Your task to perform on an android device: check storage Image 0: 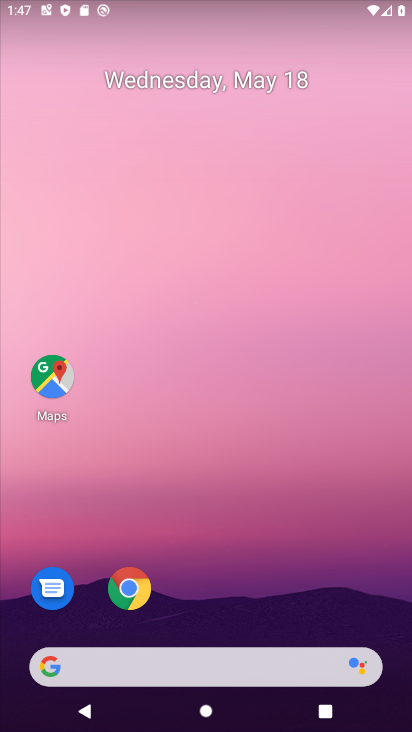
Step 0: drag from (379, 608) to (352, 219)
Your task to perform on an android device: check storage Image 1: 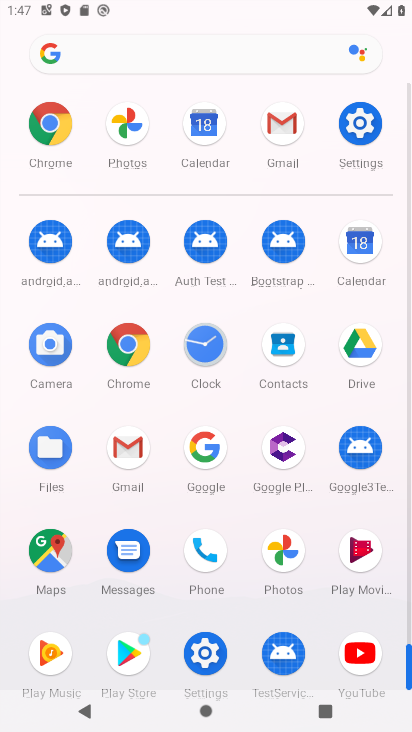
Step 1: click (360, 139)
Your task to perform on an android device: check storage Image 2: 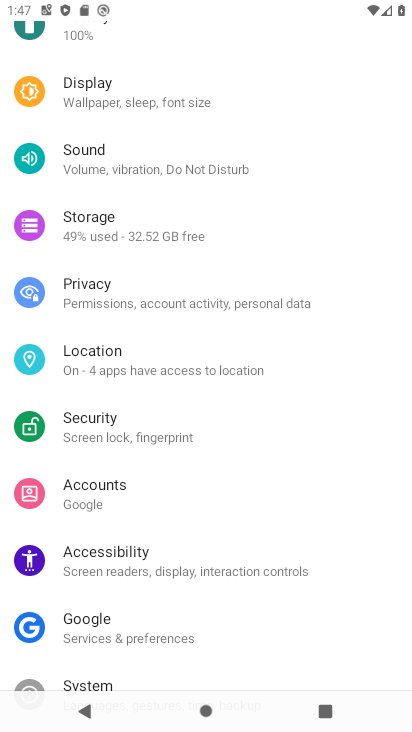
Step 2: drag from (352, 602) to (364, 456)
Your task to perform on an android device: check storage Image 3: 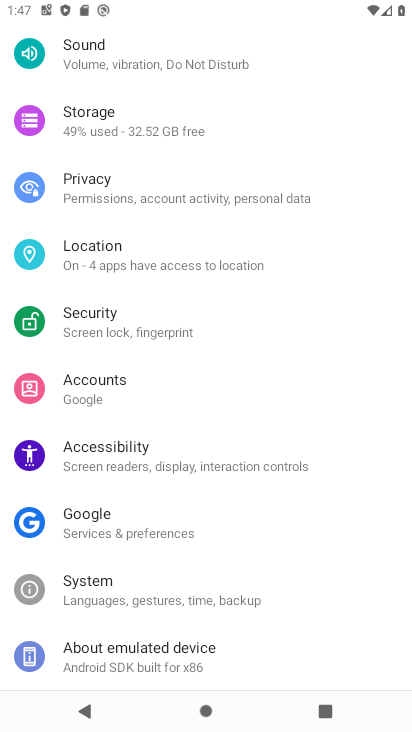
Step 3: drag from (337, 598) to (333, 429)
Your task to perform on an android device: check storage Image 4: 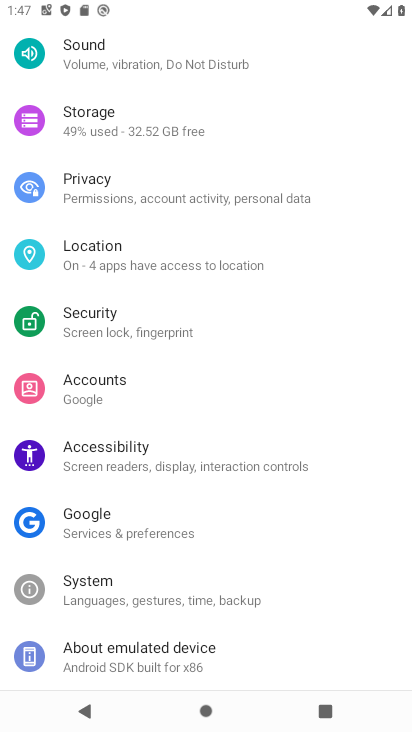
Step 4: drag from (336, 357) to (331, 478)
Your task to perform on an android device: check storage Image 5: 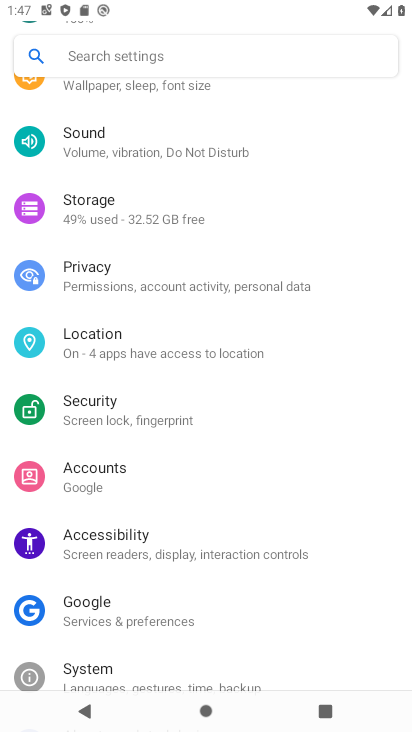
Step 5: drag from (334, 327) to (334, 454)
Your task to perform on an android device: check storage Image 6: 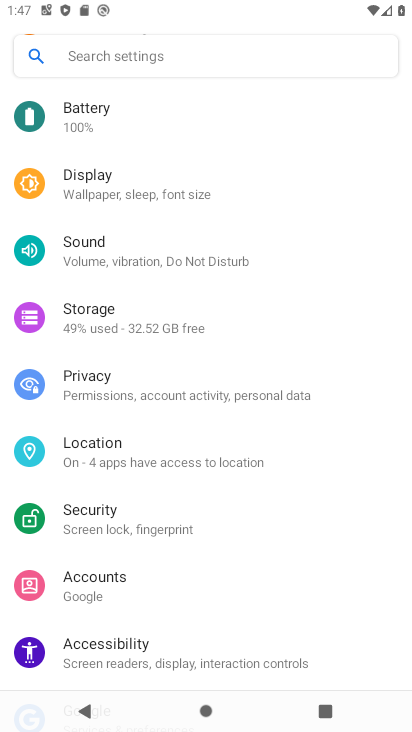
Step 6: drag from (362, 271) to (348, 496)
Your task to perform on an android device: check storage Image 7: 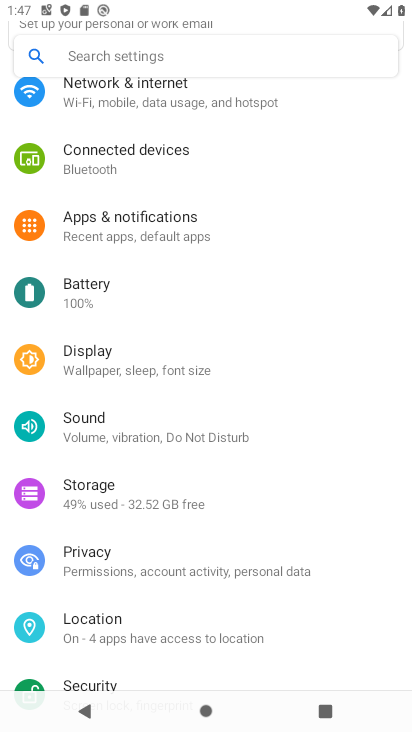
Step 7: drag from (339, 267) to (320, 496)
Your task to perform on an android device: check storage Image 8: 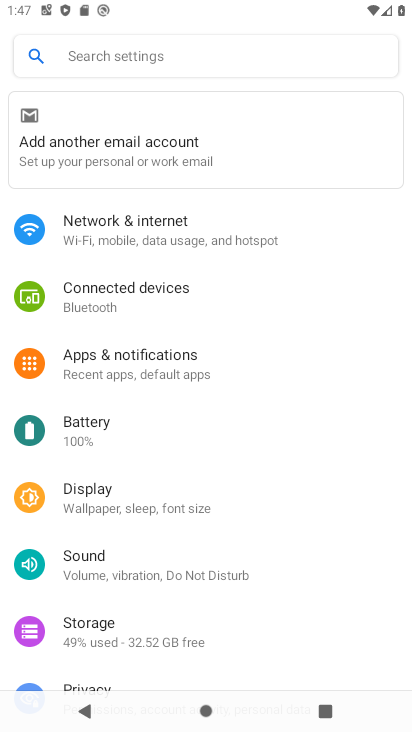
Step 8: drag from (313, 335) to (300, 496)
Your task to perform on an android device: check storage Image 9: 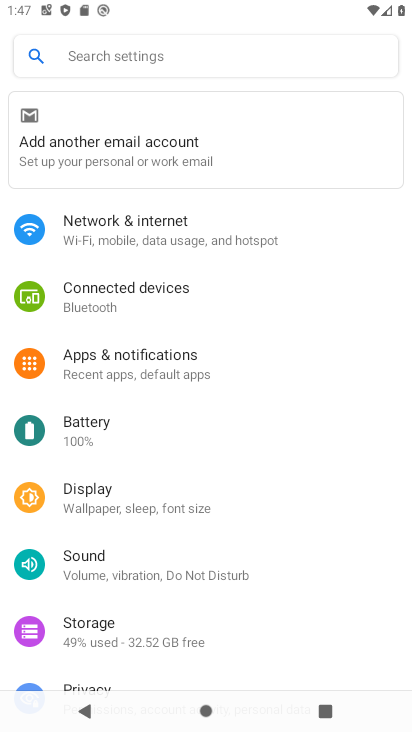
Step 9: drag from (310, 589) to (324, 378)
Your task to perform on an android device: check storage Image 10: 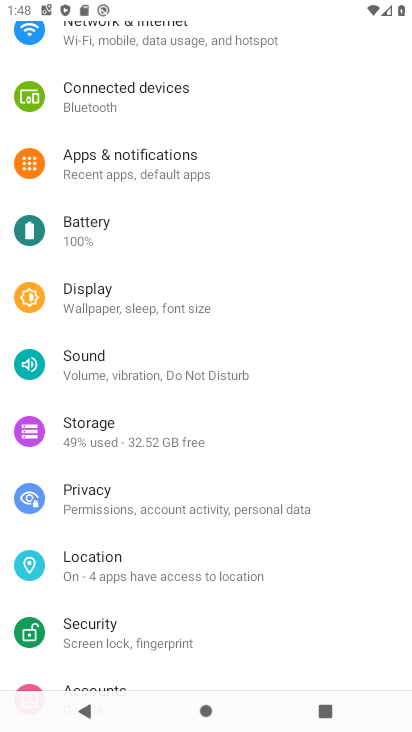
Step 10: drag from (336, 594) to (349, 431)
Your task to perform on an android device: check storage Image 11: 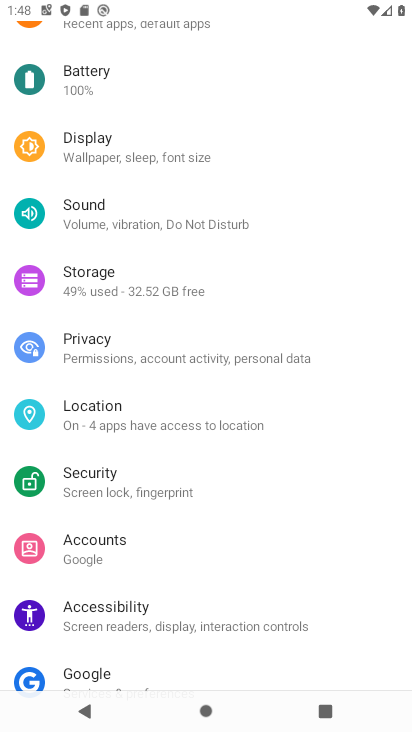
Step 11: drag from (338, 600) to (357, 420)
Your task to perform on an android device: check storage Image 12: 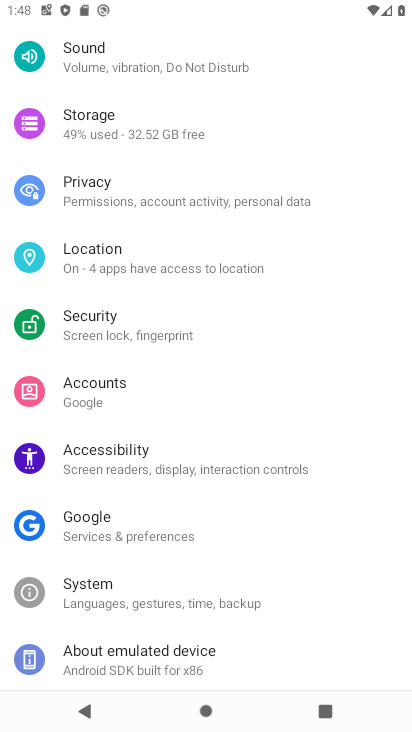
Step 12: drag from (326, 589) to (344, 412)
Your task to perform on an android device: check storage Image 13: 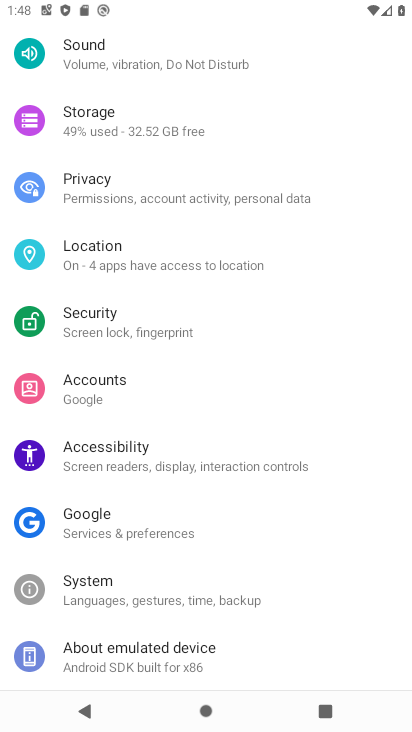
Step 13: drag from (324, 596) to (338, 409)
Your task to perform on an android device: check storage Image 14: 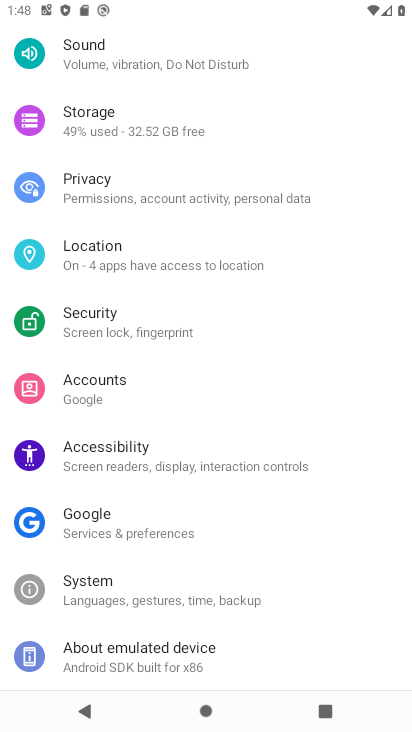
Step 14: drag from (341, 349) to (328, 523)
Your task to perform on an android device: check storage Image 15: 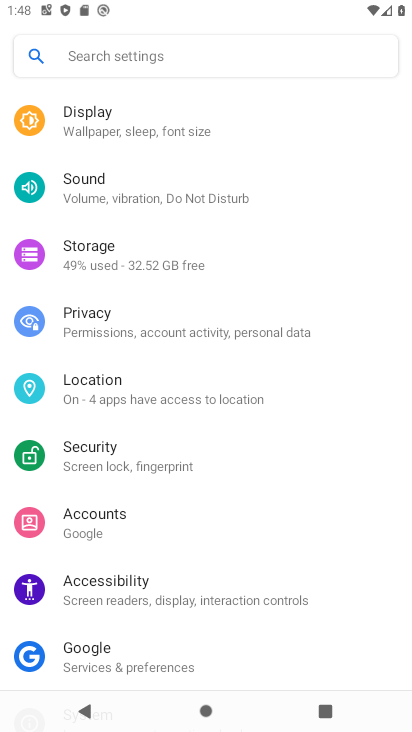
Step 15: drag from (339, 344) to (335, 511)
Your task to perform on an android device: check storage Image 16: 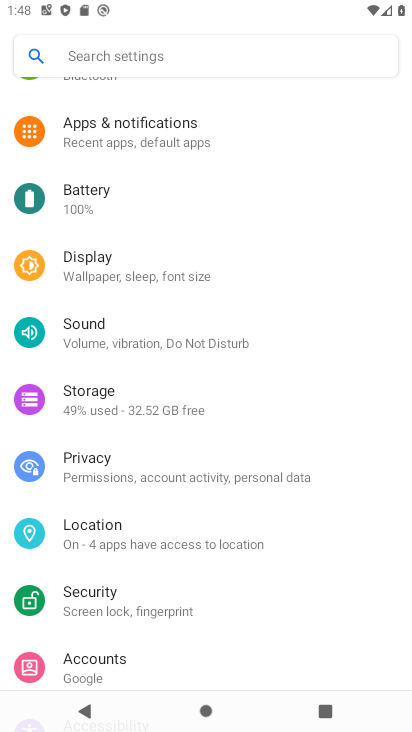
Step 16: drag from (336, 297) to (336, 514)
Your task to perform on an android device: check storage Image 17: 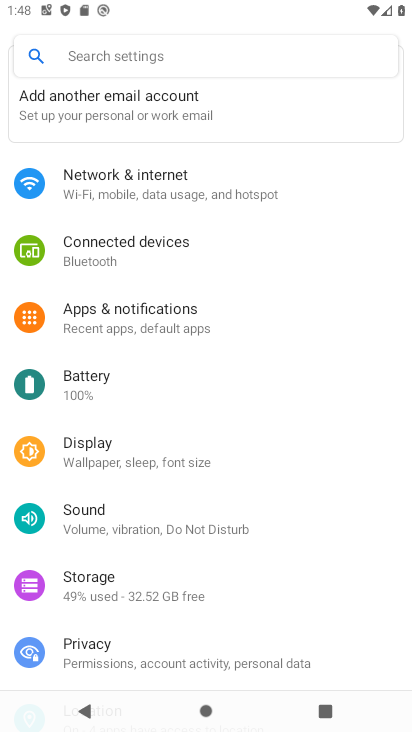
Step 17: drag from (312, 319) to (302, 484)
Your task to perform on an android device: check storage Image 18: 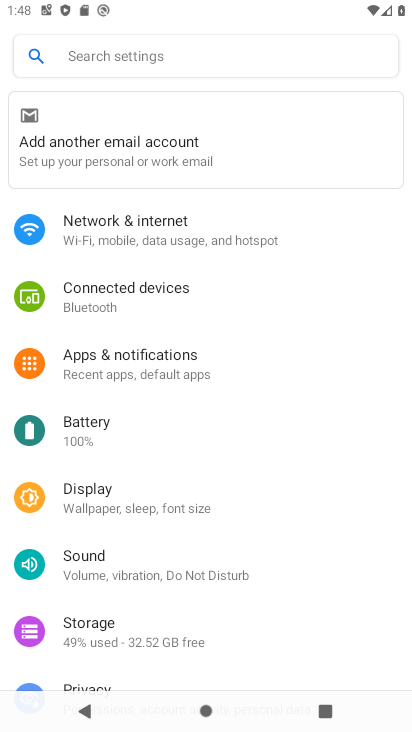
Step 18: drag from (292, 345) to (292, 437)
Your task to perform on an android device: check storage Image 19: 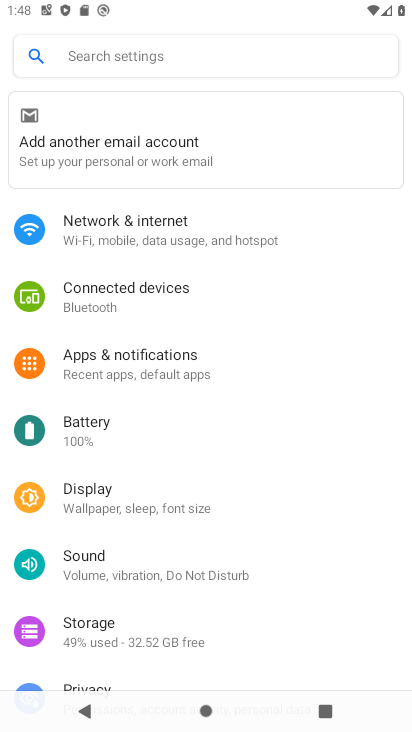
Step 19: drag from (292, 535) to (287, 350)
Your task to perform on an android device: check storage Image 20: 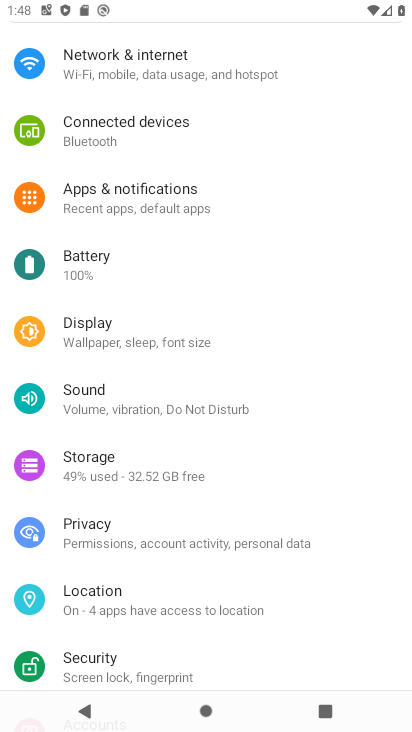
Step 20: drag from (285, 513) to (303, 321)
Your task to perform on an android device: check storage Image 21: 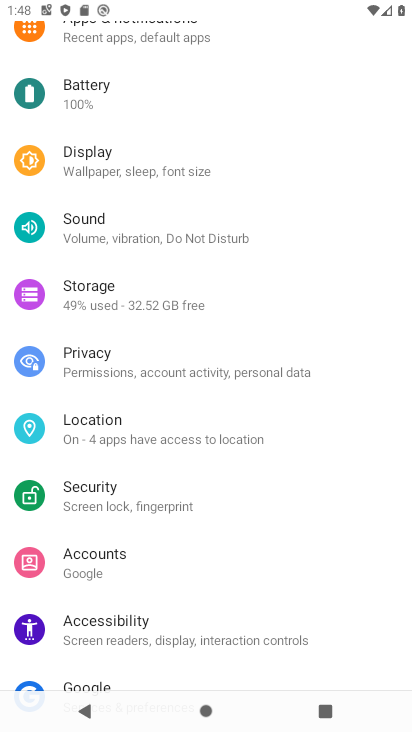
Step 21: drag from (311, 526) to (316, 395)
Your task to perform on an android device: check storage Image 22: 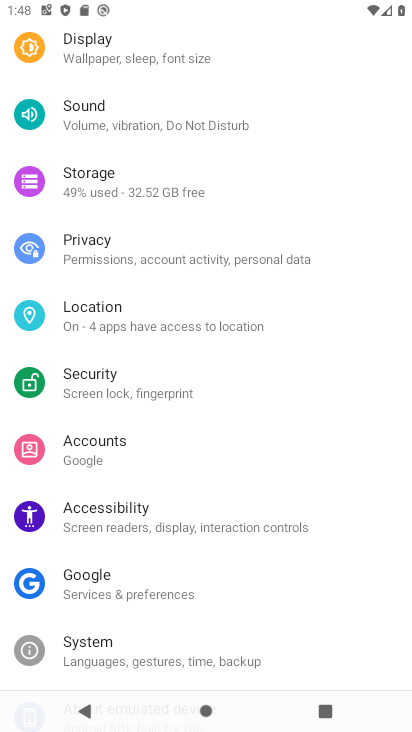
Step 22: click (155, 188)
Your task to perform on an android device: check storage Image 23: 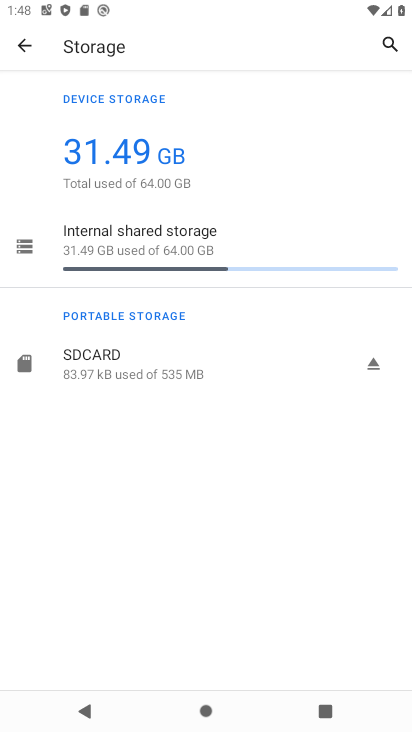
Step 23: task complete